Your task to perform on an android device: add a label to a message in the gmail app Image 0: 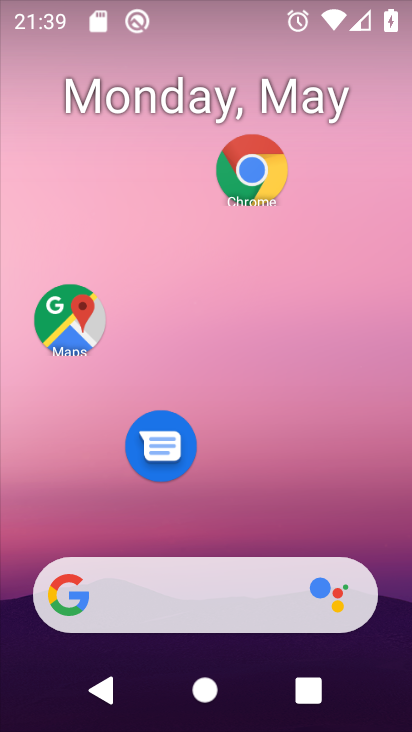
Step 0: press home button
Your task to perform on an android device: add a label to a message in the gmail app Image 1: 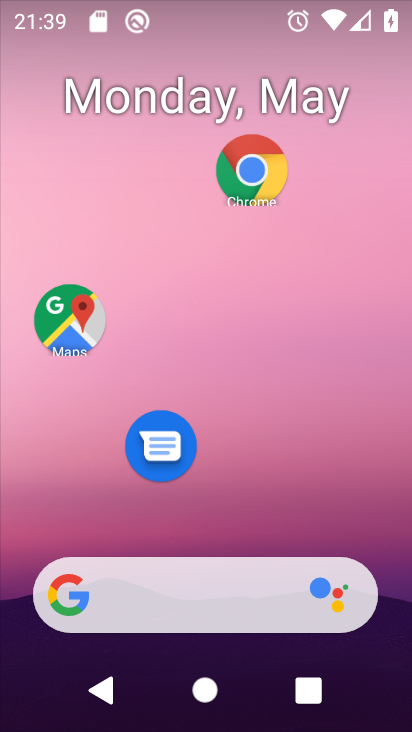
Step 1: drag from (229, 521) to (232, 51)
Your task to perform on an android device: add a label to a message in the gmail app Image 2: 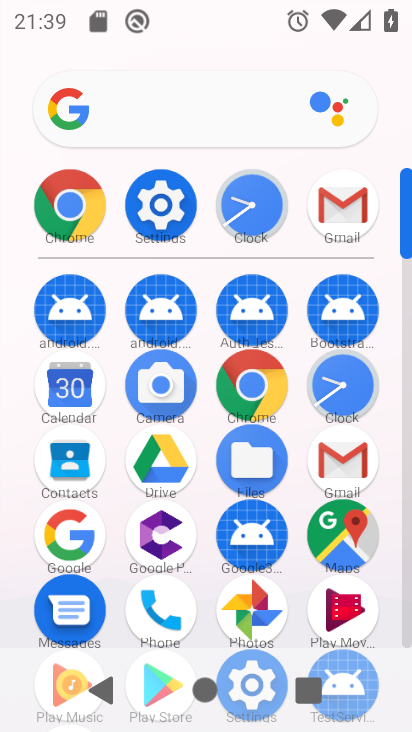
Step 2: click (340, 191)
Your task to perform on an android device: add a label to a message in the gmail app Image 3: 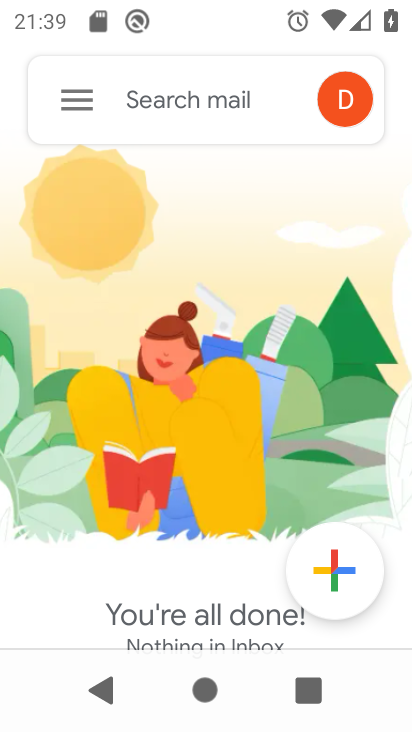
Step 3: click (69, 102)
Your task to perform on an android device: add a label to a message in the gmail app Image 4: 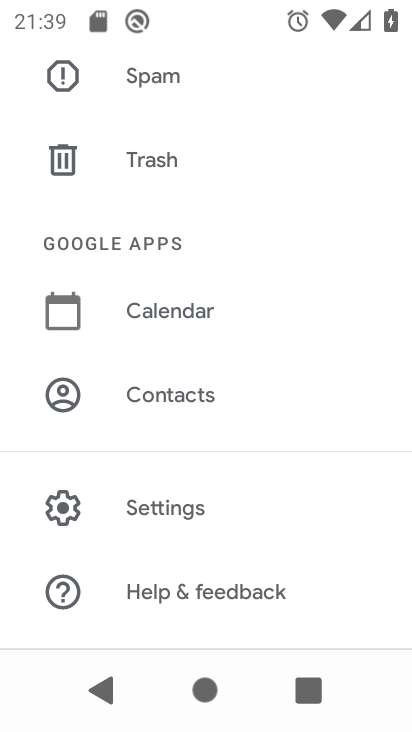
Step 4: task complete